Your task to perform on an android device: Go to accessibility settings Image 0: 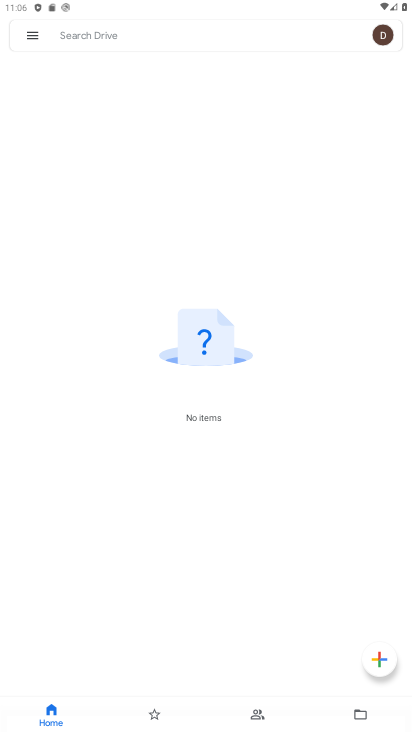
Step 0: press home button
Your task to perform on an android device: Go to accessibility settings Image 1: 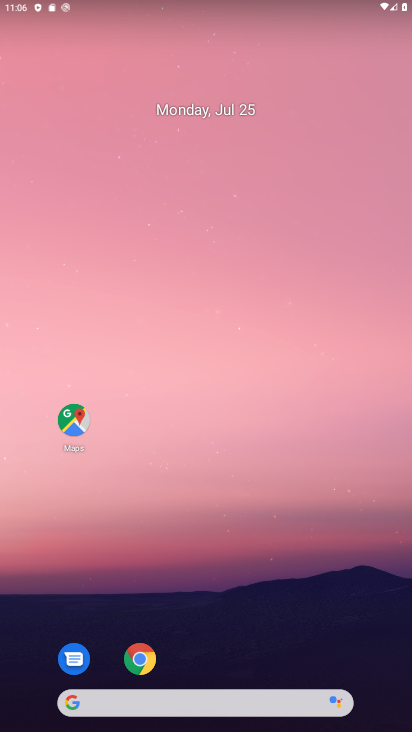
Step 1: drag from (23, 685) to (167, 276)
Your task to perform on an android device: Go to accessibility settings Image 2: 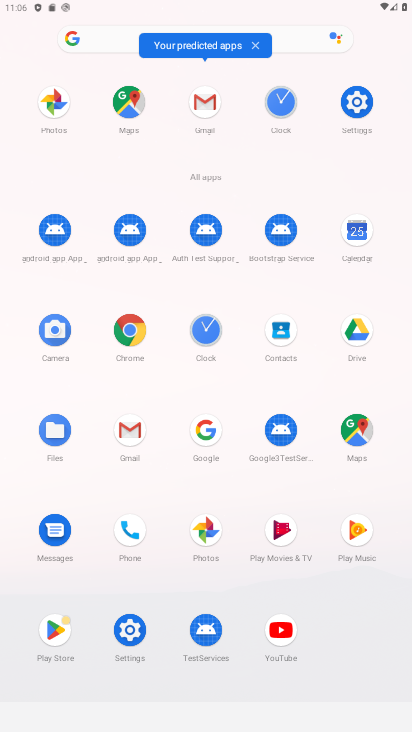
Step 2: click (130, 627)
Your task to perform on an android device: Go to accessibility settings Image 3: 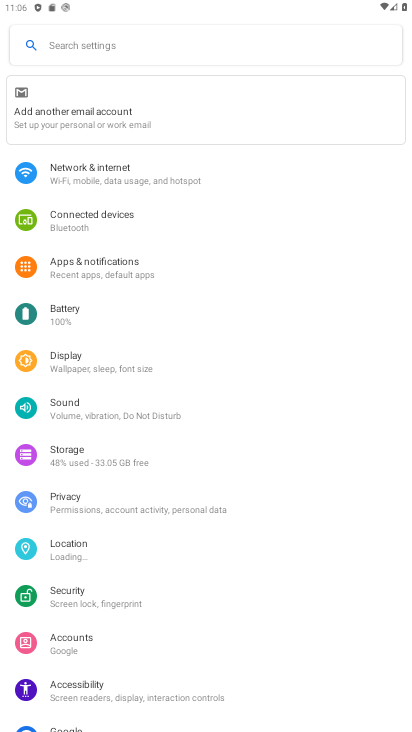
Step 3: click (83, 682)
Your task to perform on an android device: Go to accessibility settings Image 4: 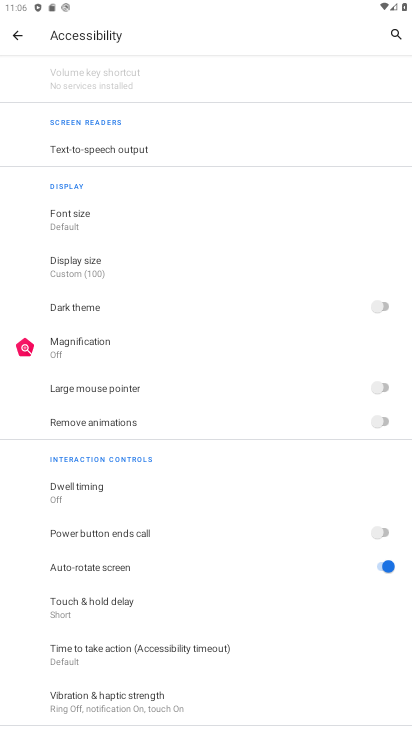
Step 4: task complete